Your task to perform on an android device: When is my next meeting? Image 0: 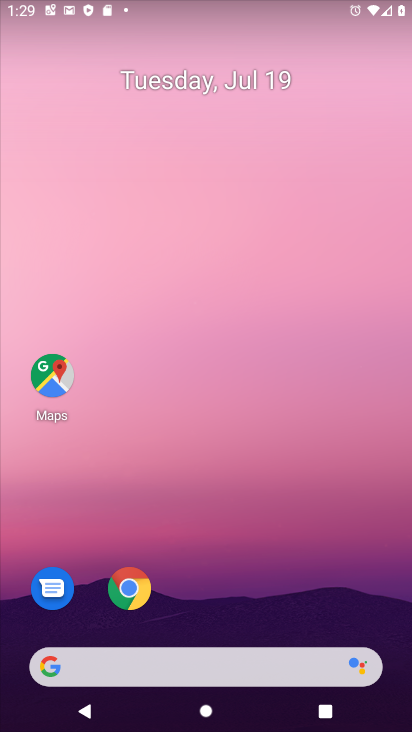
Step 0: drag from (330, 606) to (229, 49)
Your task to perform on an android device: When is my next meeting? Image 1: 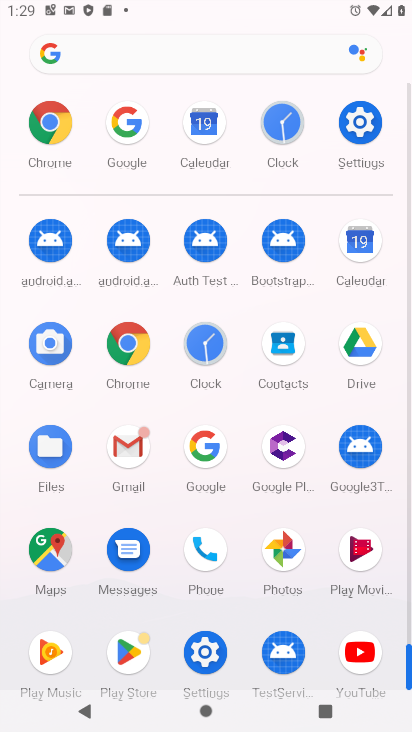
Step 1: click (353, 243)
Your task to perform on an android device: When is my next meeting? Image 2: 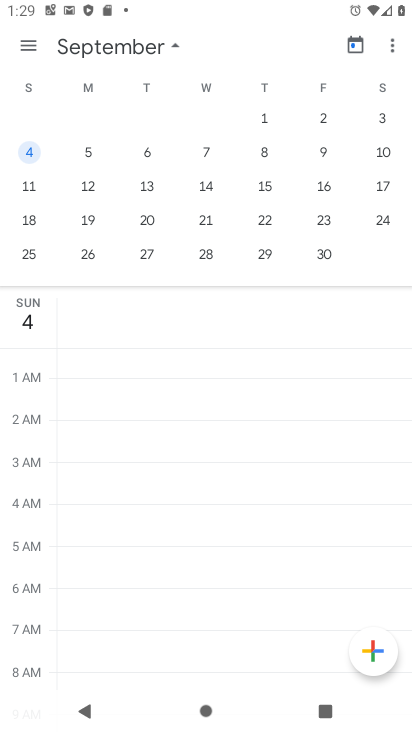
Step 2: task complete